Your task to perform on an android device: show emergency info Image 0: 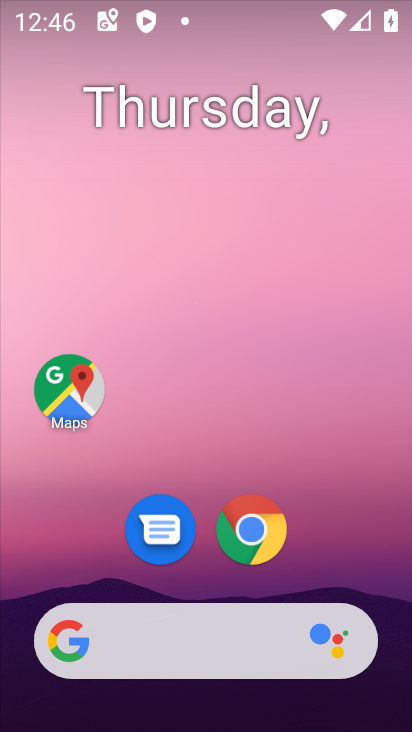
Step 0: drag from (241, 718) to (232, 270)
Your task to perform on an android device: show emergency info Image 1: 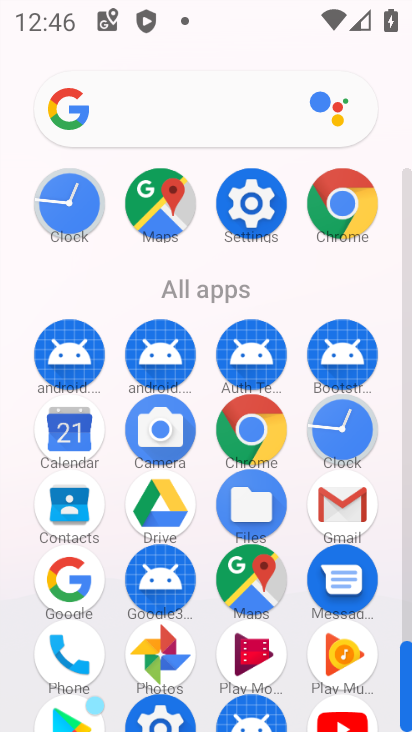
Step 1: click (257, 206)
Your task to perform on an android device: show emergency info Image 2: 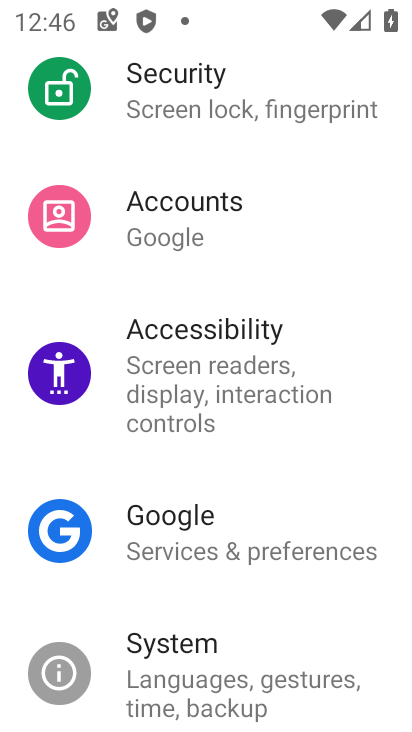
Step 2: drag from (244, 624) to (241, 227)
Your task to perform on an android device: show emergency info Image 3: 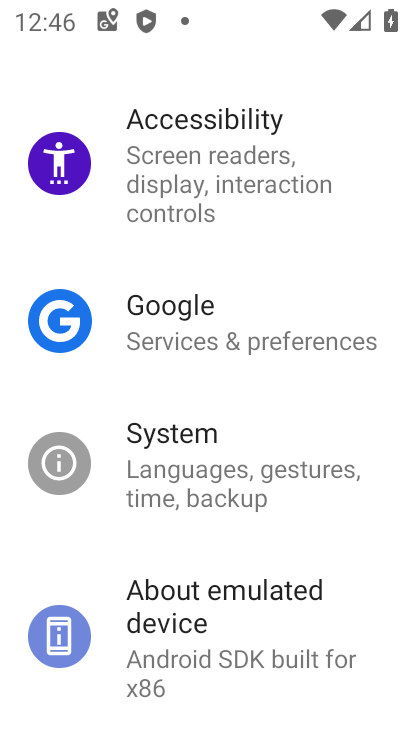
Step 3: click (184, 629)
Your task to perform on an android device: show emergency info Image 4: 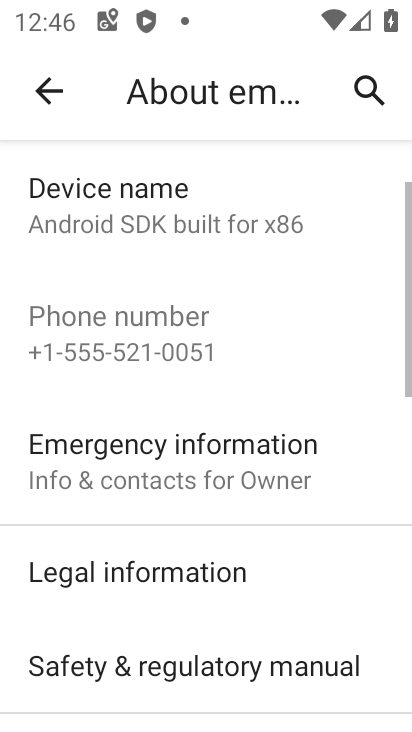
Step 4: click (148, 482)
Your task to perform on an android device: show emergency info Image 5: 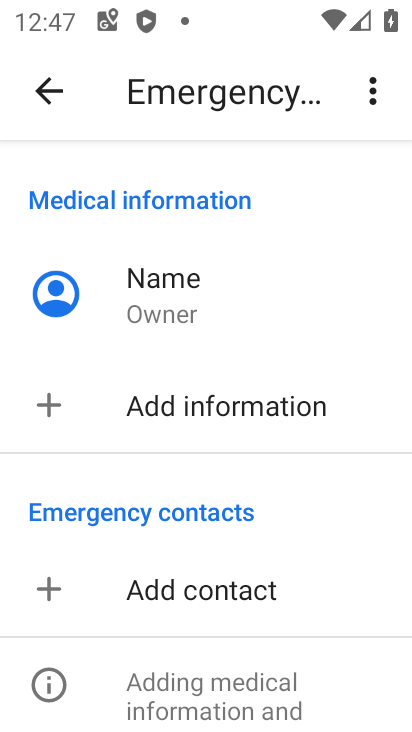
Step 5: task complete